Your task to perform on an android device: Open the calendar and show me this week's events? Image 0: 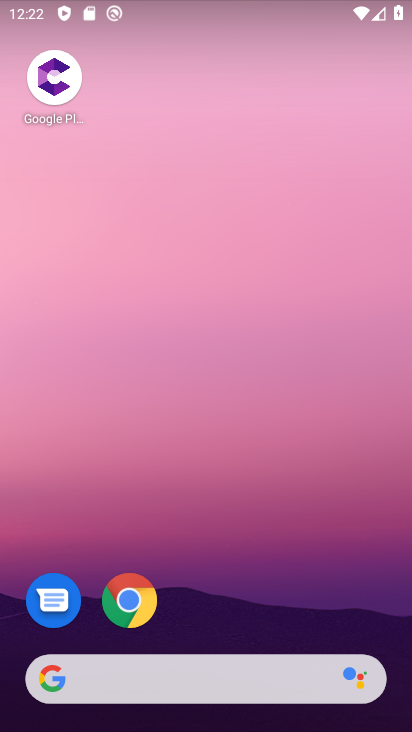
Step 0: drag from (307, 526) to (275, 109)
Your task to perform on an android device: Open the calendar and show me this week's events? Image 1: 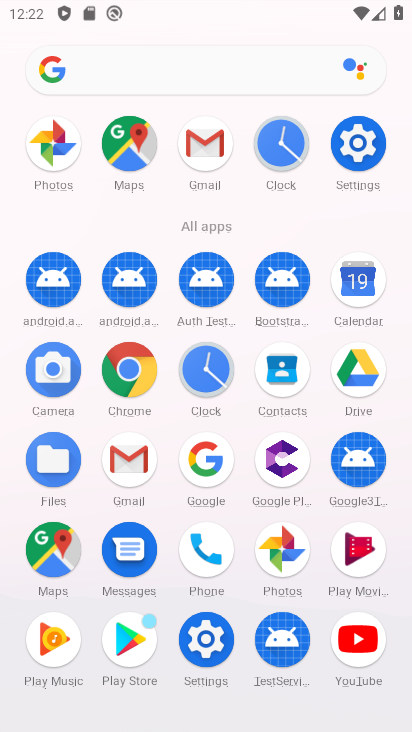
Step 1: click (353, 280)
Your task to perform on an android device: Open the calendar and show me this week's events? Image 2: 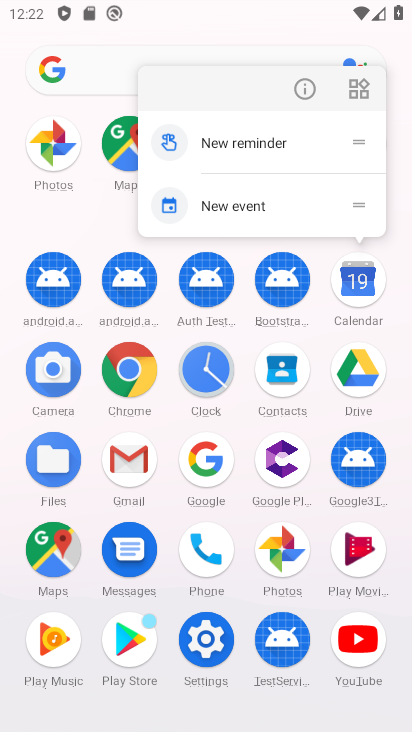
Step 2: click (373, 288)
Your task to perform on an android device: Open the calendar and show me this week's events? Image 3: 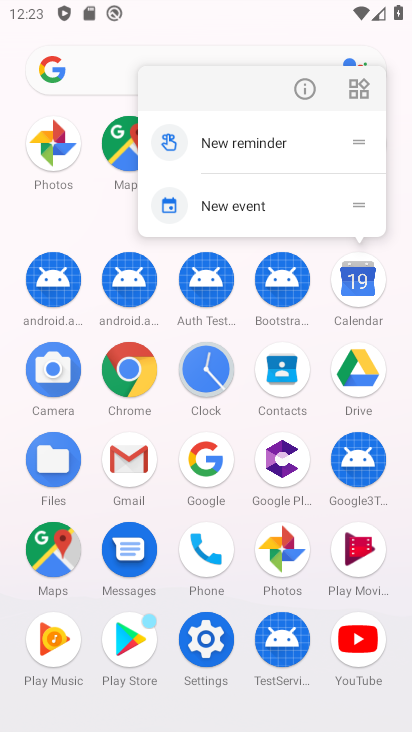
Step 3: click (349, 279)
Your task to perform on an android device: Open the calendar and show me this week's events? Image 4: 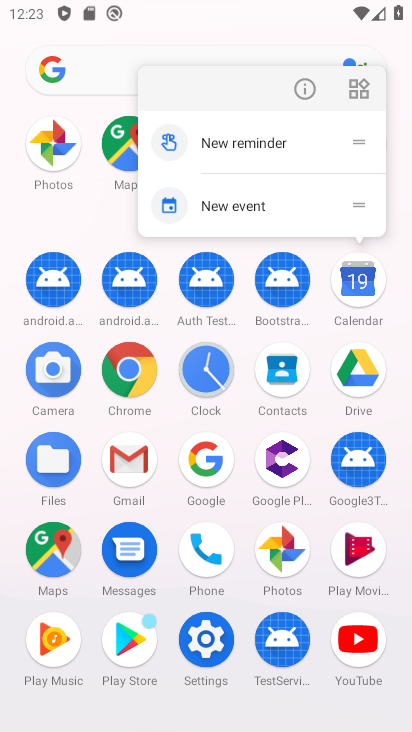
Step 4: click (344, 280)
Your task to perform on an android device: Open the calendar and show me this week's events? Image 5: 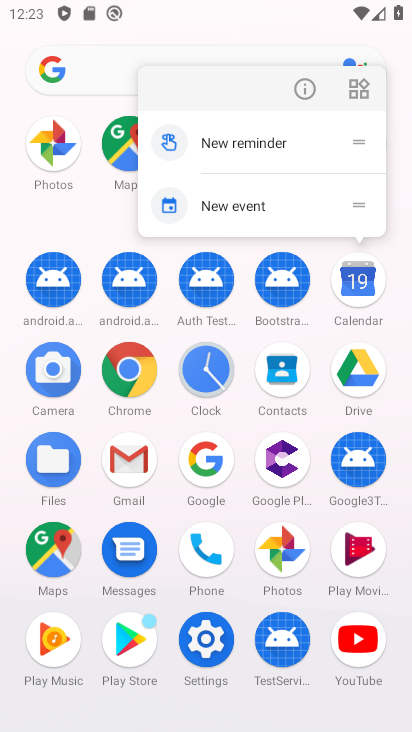
Step 5: click (349, 291)
Your task to perform on an android device: Open the calendar and show me this week's events? Image 6: 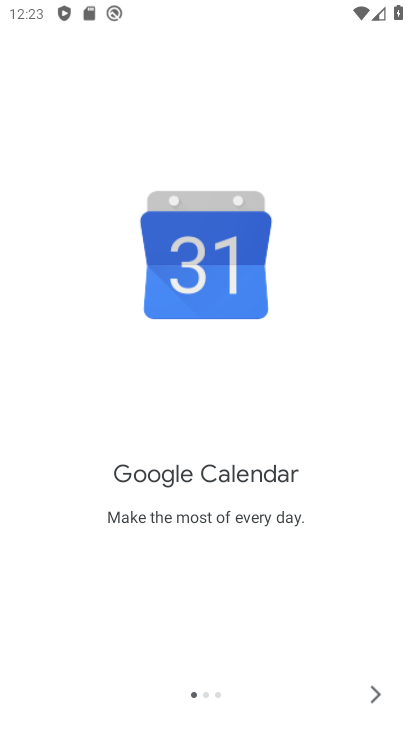
Step 6: click (377, 700)
Your task to perform on an android device: Open the calendar and show me this week's events? Image 7: 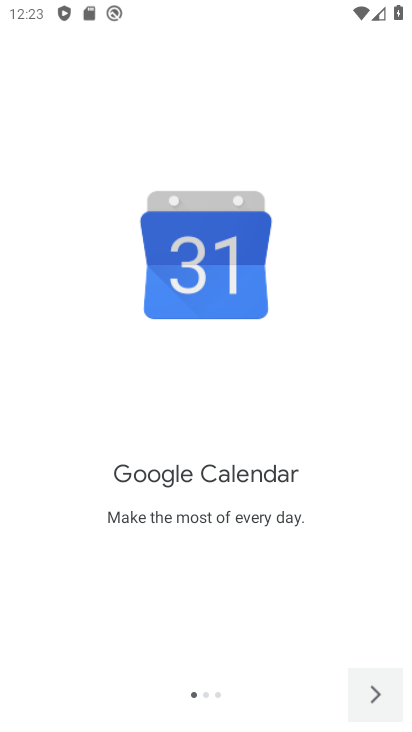
Step 7: click (377, 700)
Your task to perform on an android device: Open the calendar and show me this week's events? Image 8: 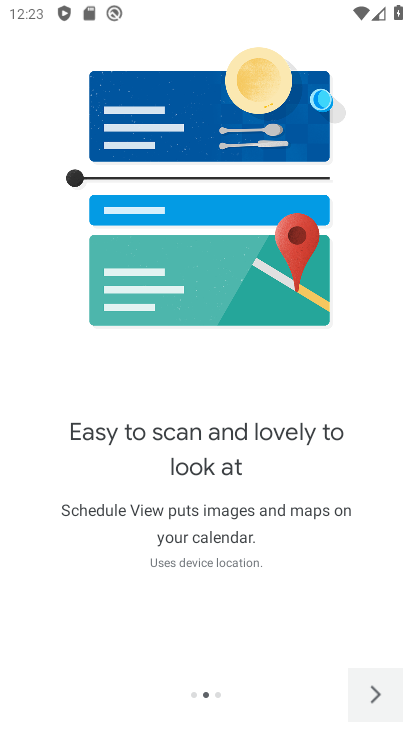
Step 8: click (377, 700)
Your task to perform on an android device: Open the calendar and show me this week's events? Image 9: 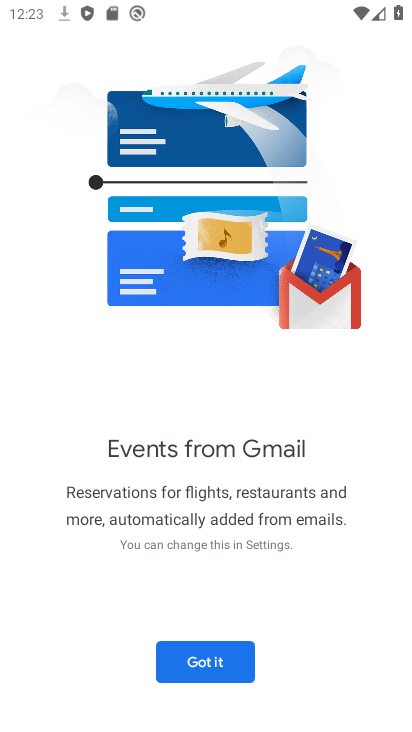
Step 9: click (377, 700)
Your task to perform on an android device: Open the calendar and show me this week's events? Image 10: 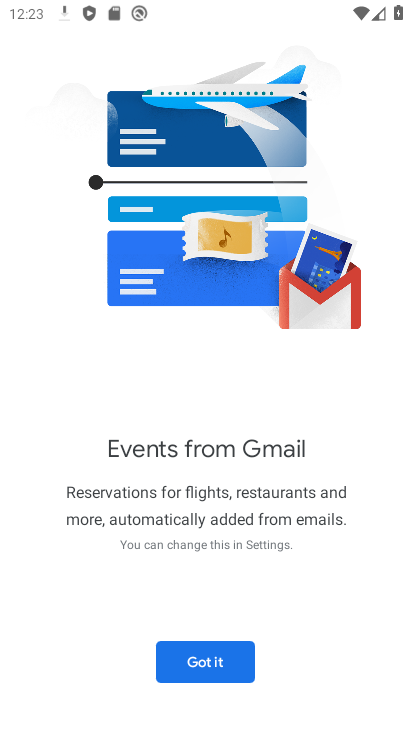
Step 10: click (239, 673)
Your task to perform on an android device: Open the calendar and show me this week's events? Image 11: 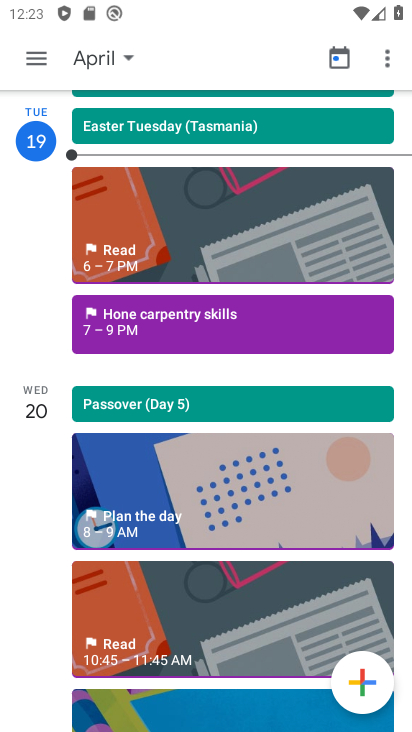
Step 11: task complete